Your task to perform on an android device: Go to internet settings Image 0: 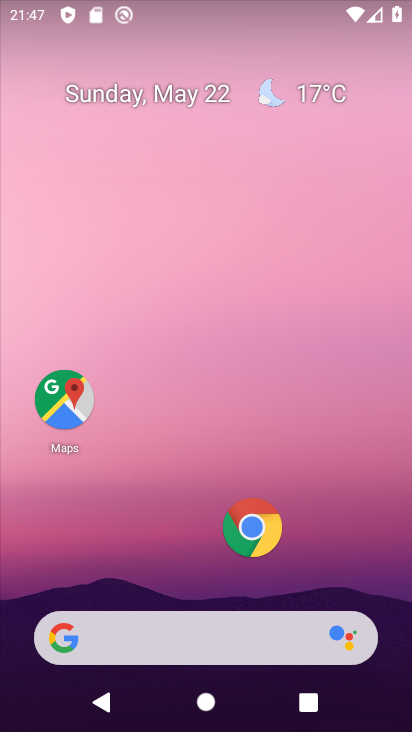
Step 0: drag from (334, 557) to (190, 18)
Your task to perform on an android device: Go to internet settings Image 1: 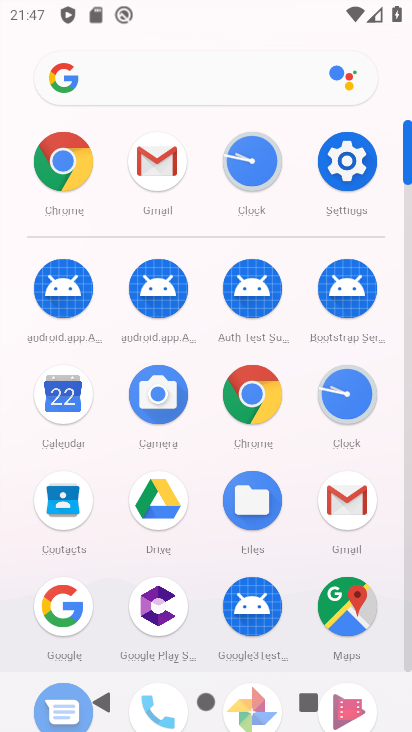
Step 1: click (348, 158)
Your task to perform on an android device: Go to internet settings Image 2: 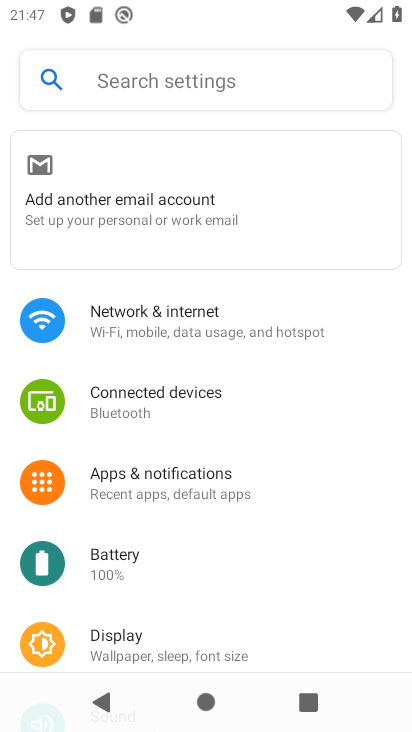
Step 2: click (173, 310)
Your task to perform on an android device: Go to internet settings Image 3: 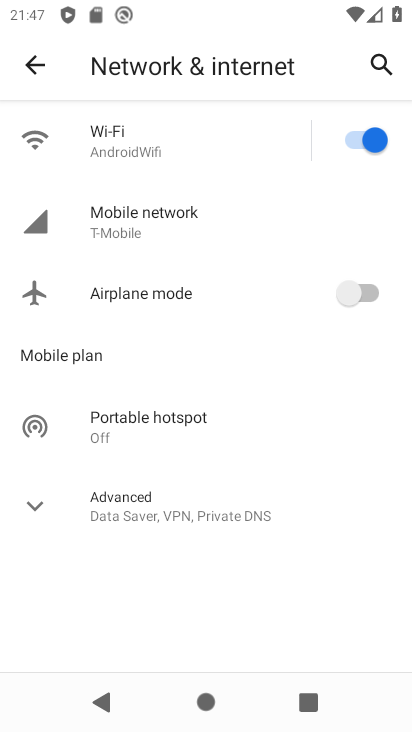
Step 3: click (139, 211)
Your task to perform on an android device: Go to internet settings Image 4: 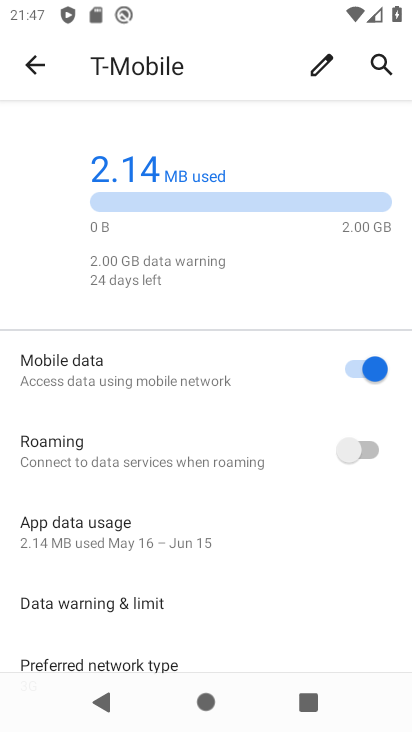
Step 4: task complete